Your task to perform on an android device: Open Google Maps Image 0: 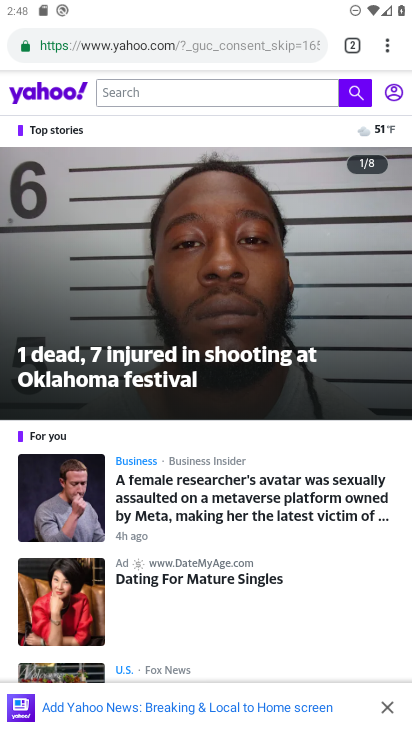
Step 0: drag from (192, 685) to (191, 235)
Your task to perform on an android device: Open Google Maps Image 1: 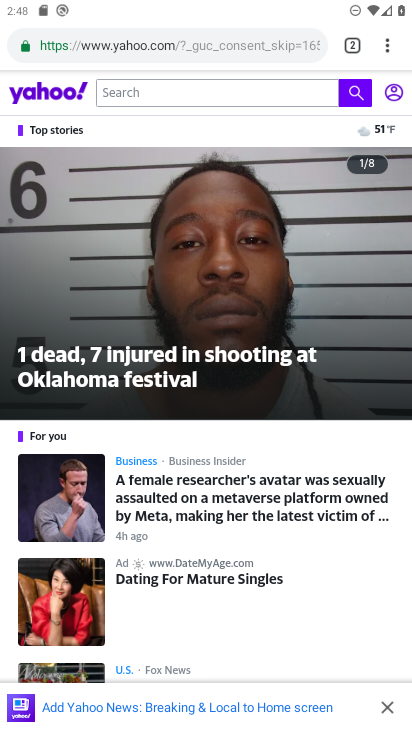
Step 1: press home button
Your task to perform on an android device: Open Google Maps Image 2: 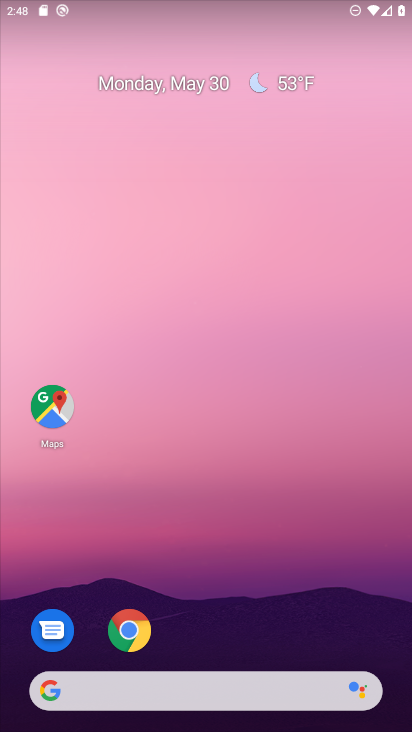
Step 2: click (45, 400)
Your task to perform on an android device: Open Google Maps Image 3: 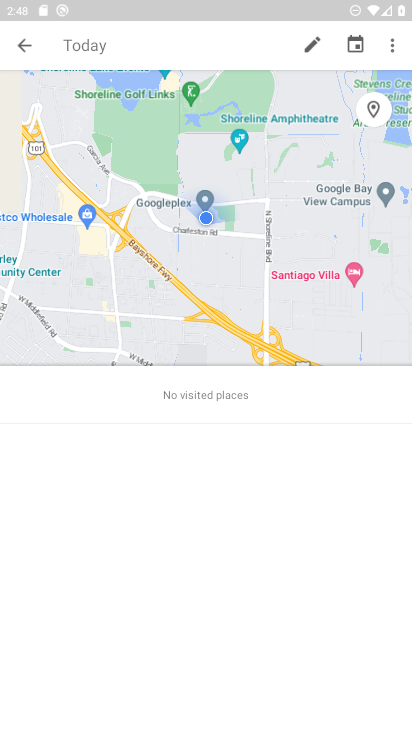
Step 3: task complete